Your task to perform on an android device: turn off picture-in-picture Image 0: 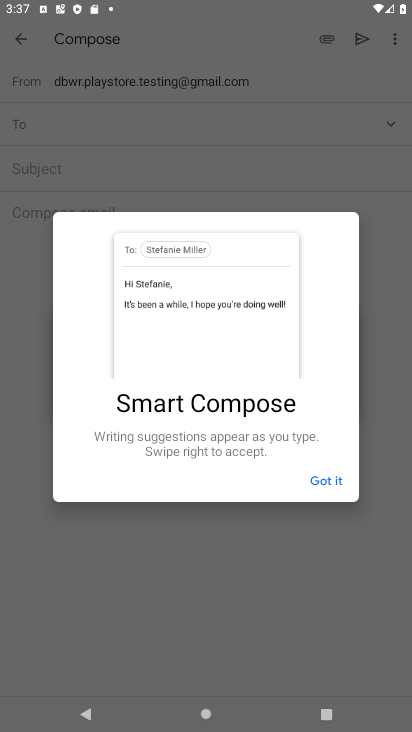
Step 0: press home button
Your task to perform on an android device: turn off picture-in-picture Image 1: 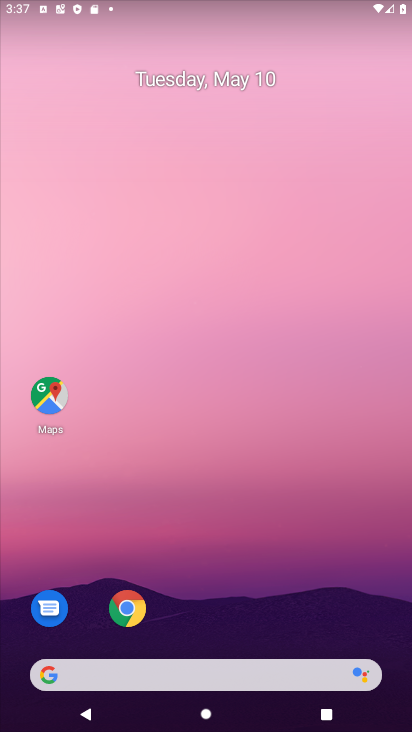
Step 1: drag from (395, 634) to (311, 3)
Your task to perform on an android device: turn off picture-in-picture Image 2: 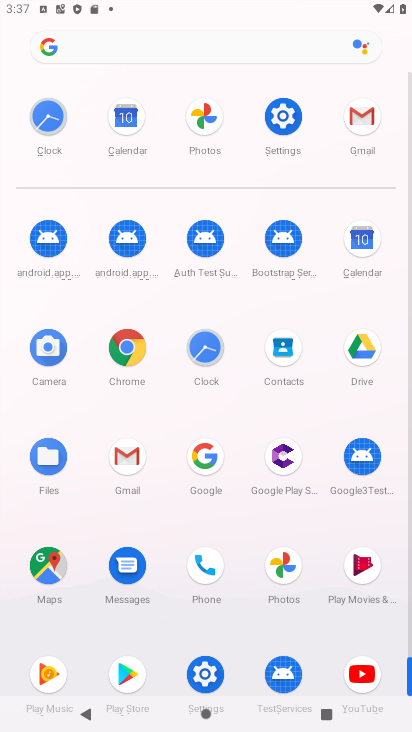
Step 2: click (411, 648)
Your task to perform on an android device: turn off picture-in-picture Image 3: 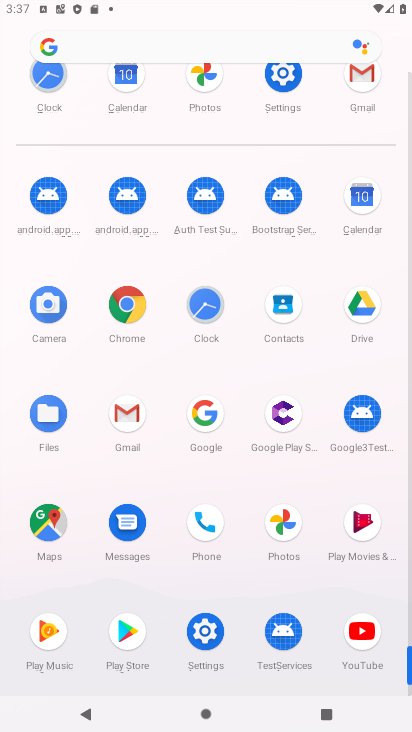
Step 3: click (204, 630)
Your task to perform on an android device: turn off picture-in-picture Image 4: 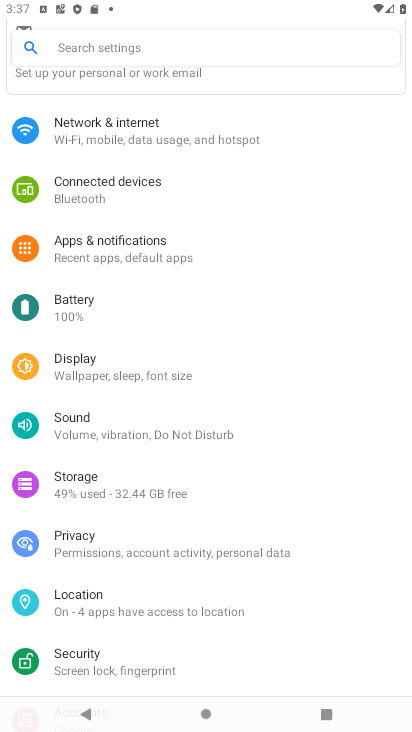
Step 4: click (91, 240)
Your task to perform on an android device: turn off picture-in-picture Image 5: 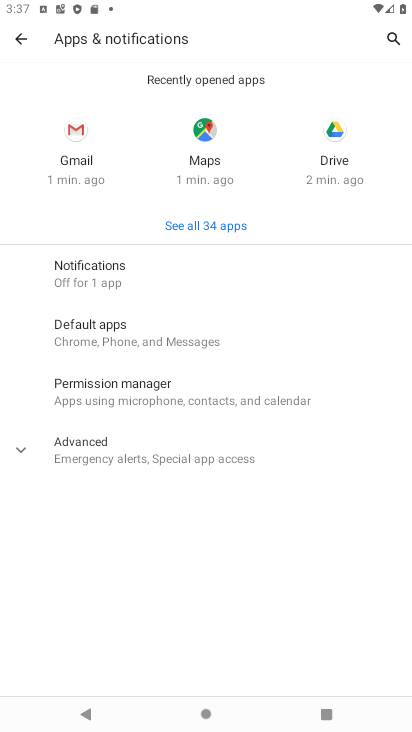
Step 5: click (25, 450)
Your task to perform on an android device: turn off picture-in-picture Image 6: 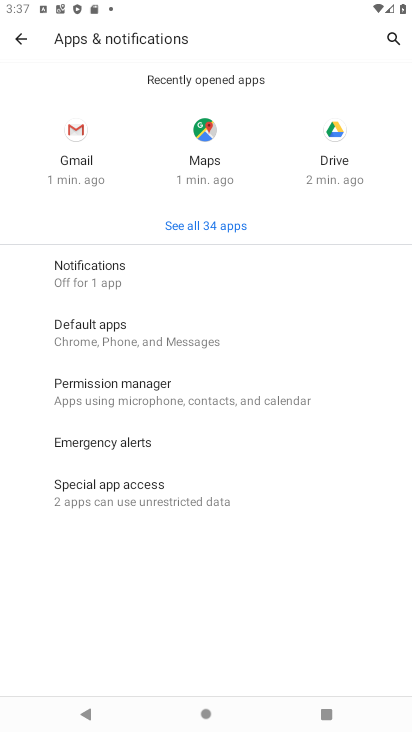
Step 6: click (93, 496)
Your task to perform on an android device: turn off picture-in-picture Image 7: 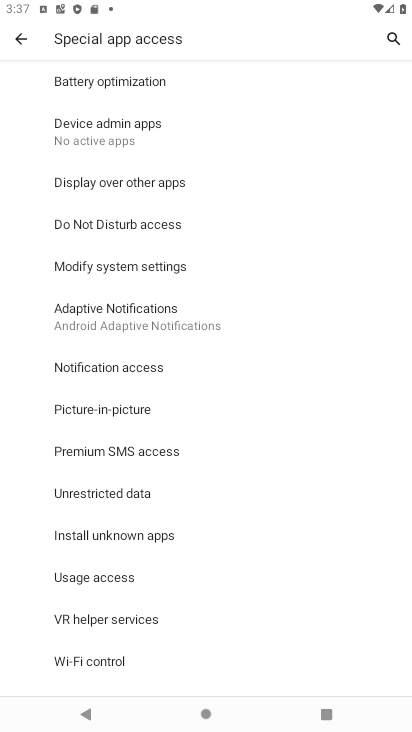
Step 7: click (109, 406)
Your task to perform on an android device: turn off picture-in-picture Image 8: 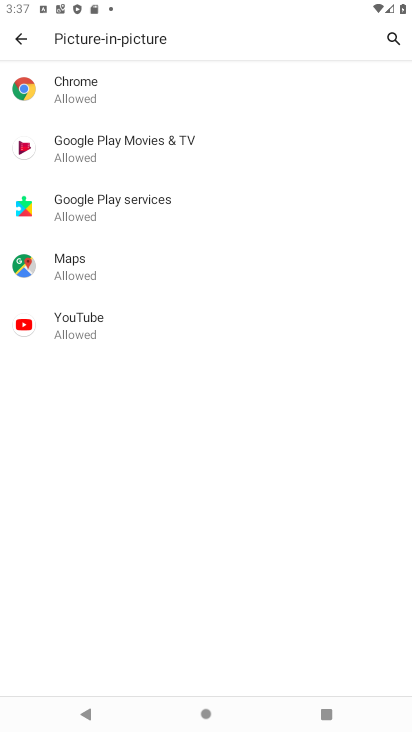
Step 8: click (84, 315)
Your task to perform on an android device: turn off picture-in-picture Image 9: 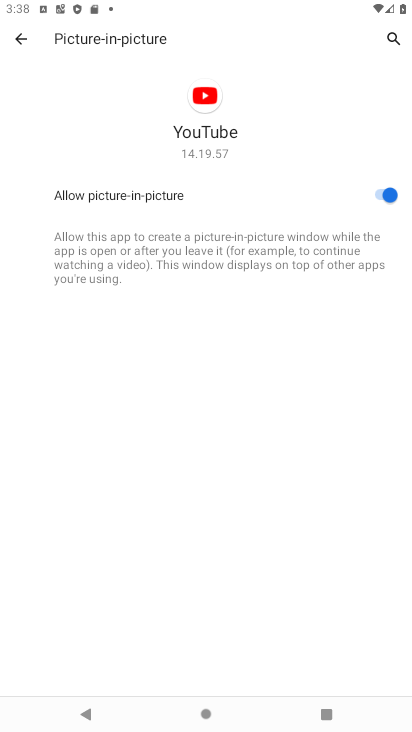
Step 9: click (377, 190)
Your task to perform on an android device: turn off picture-in-picture Image 10: 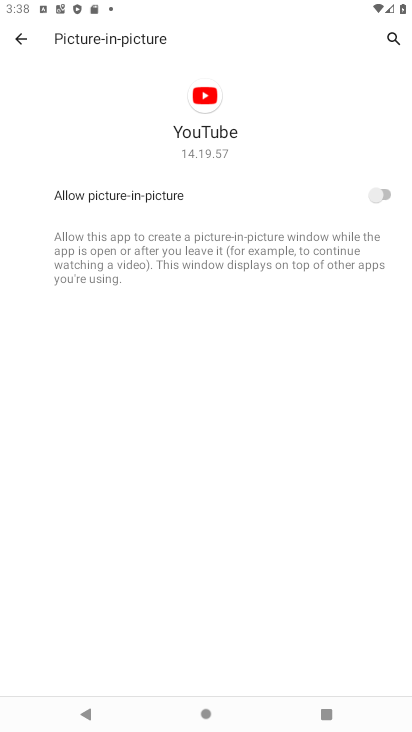
Step 10: task complete